Your task to perform on an android device: open chrome privacy settings Image 0: 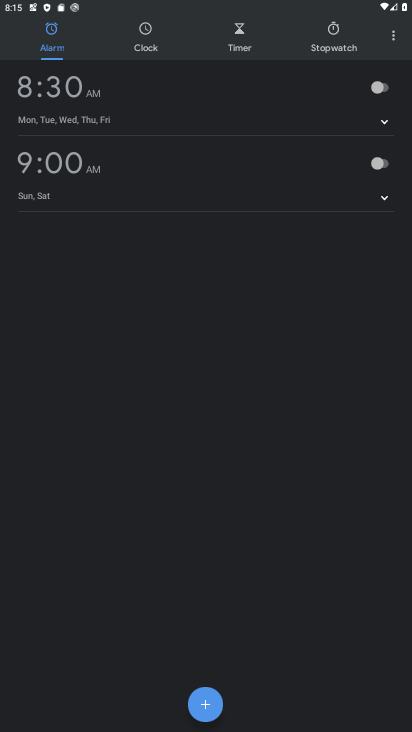
Step 0: press home button
Your task to perform on an android device: open chrome privacy settings Image 1: 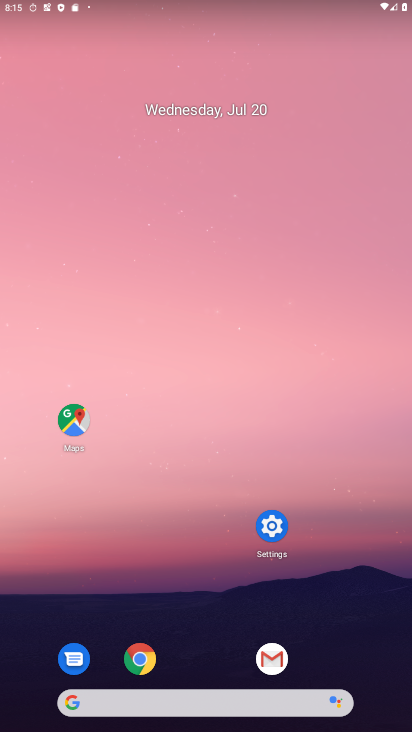
Step 1: click (145, 655)
Your task to perform on an android device: open chrome privacy settings Image 2: 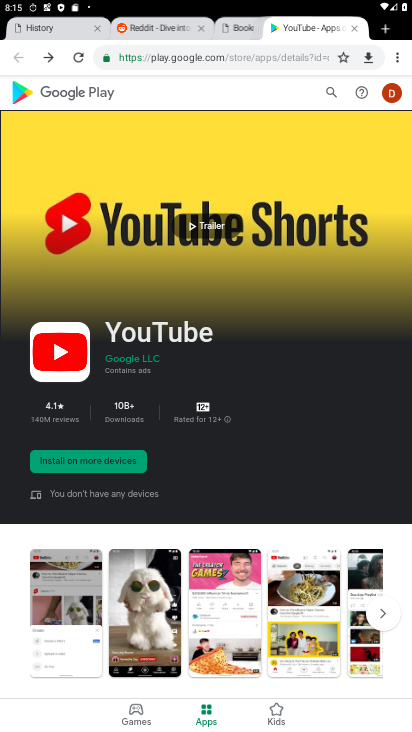
Step 2: click (404, 61)
Your task to perform on an android device: open chrome privacy settings Image 3: 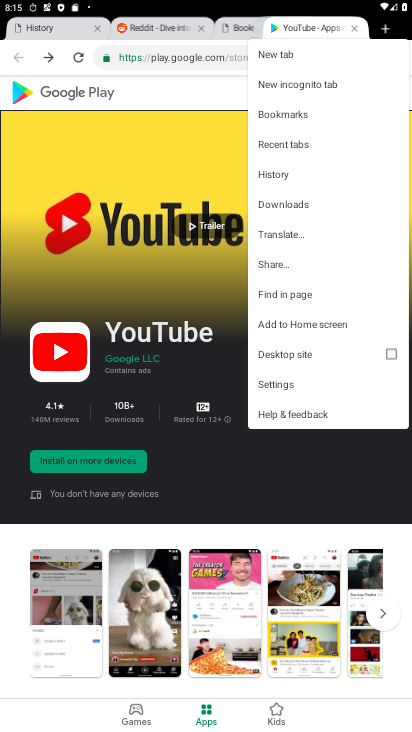
Step 3: click (284, 380)
Your task to perform on an android device: open chrome privacy settings Image 4: 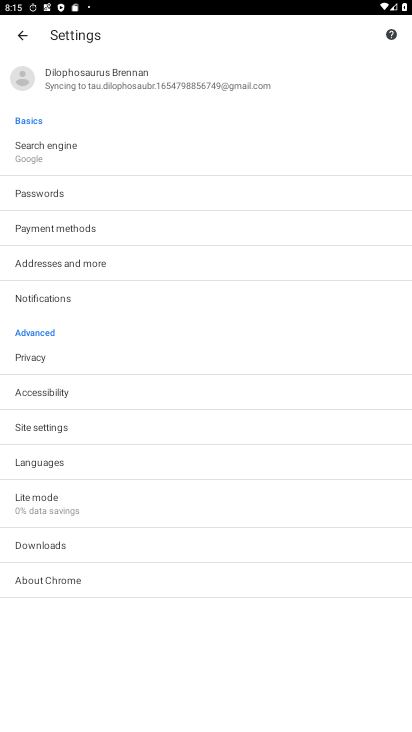
Step 4: click (35, 362)
Your task to perform on an android device: open chrome privacy settings Image 5: 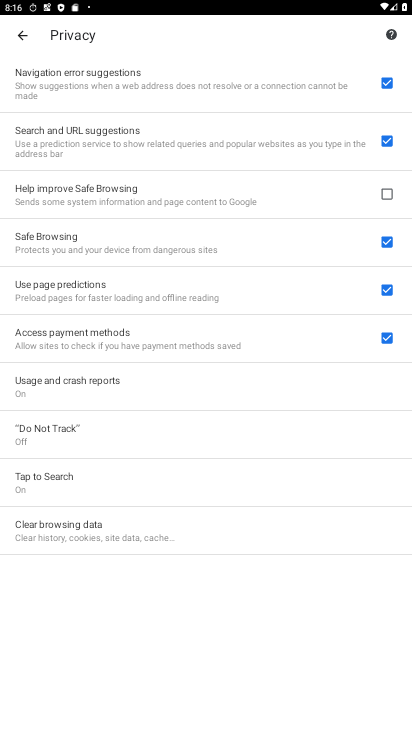
Step 5: task complete